Your task to perform on an android device: Open battery settings Image 0: 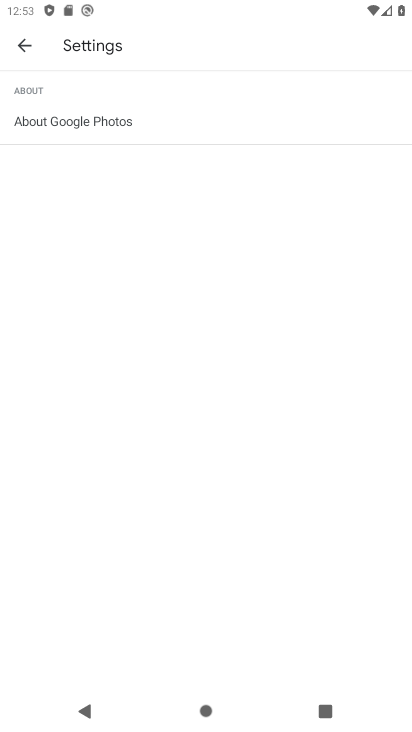
Step 0: press home button
Your task to perform on an android device: Open battery settings Image 1: 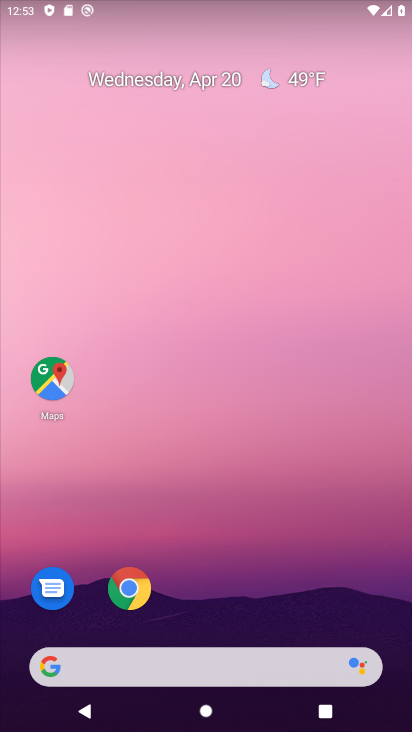
Step 1: drag from (167, 667) to (294, 12)
Your task to perform on an android device: Open battery settings Image 2: 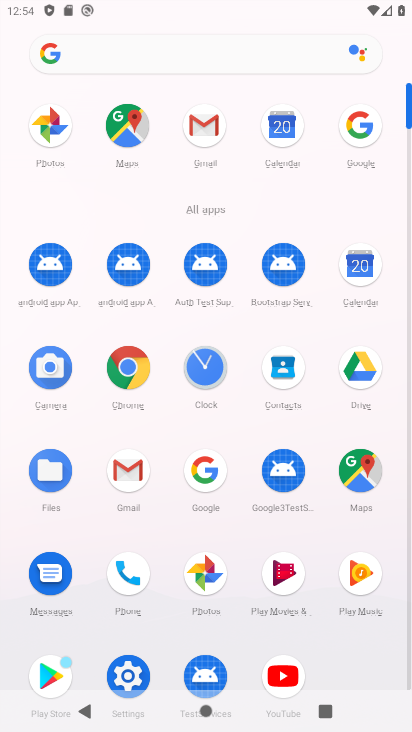
Step 2: click (133, 677)
Your task to perform on an android device: Open battery settings Image 3: 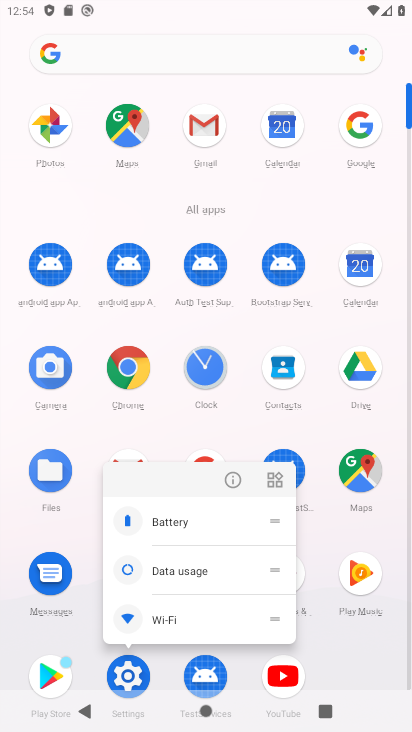
Step 3: click (125, 678)
Your task to perform on an android device: Open battery settings Image 4: 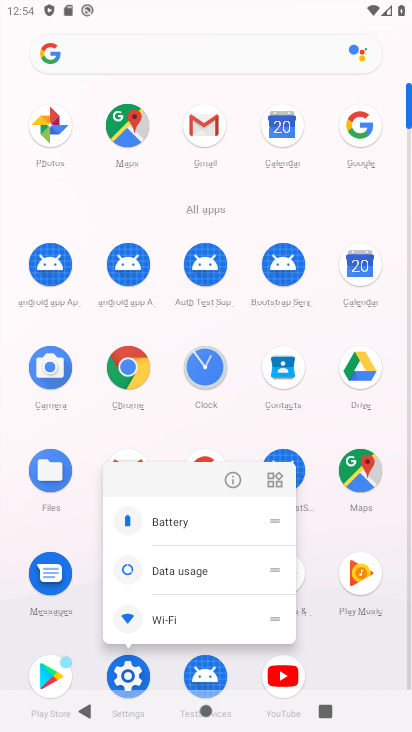
Step 4: click (126, 678)
Your task to perform on an android device: Open battery settings Image 5: 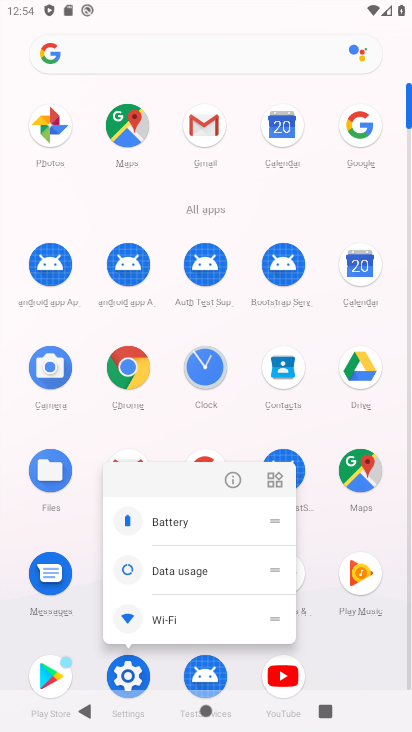
Step 5: click (128, 677)
Your task to perform on an android device: Open battery settings Image 6: 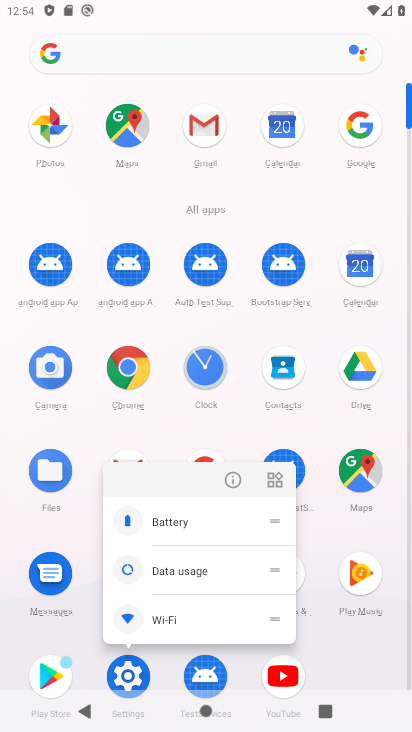
Step 6: click (132, 671)
Your task to perform on an android device: Open battery settings Image 7: 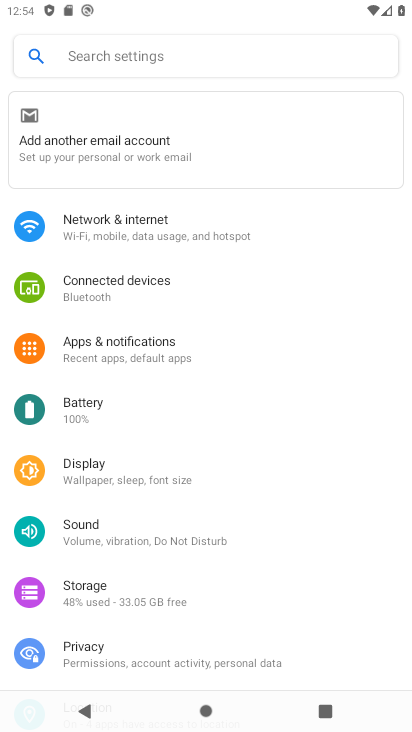
Step 7: click (84, 406)
Your task to perform on an android device: Open battery settings Image 8: 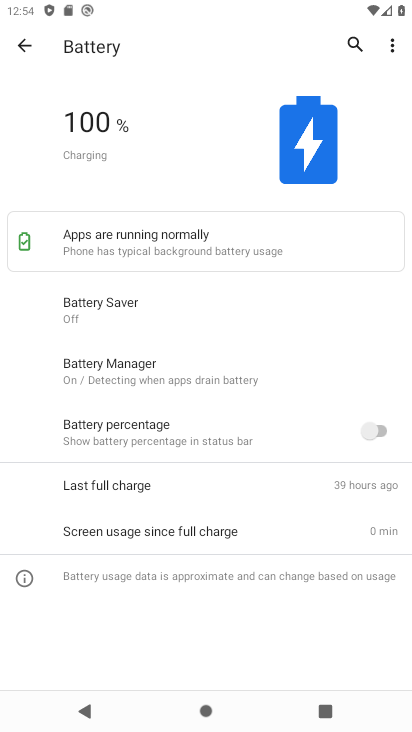
Step 8: task complete